Your task to perform on an android device: turn smart compose on in the gmail app Image 0: 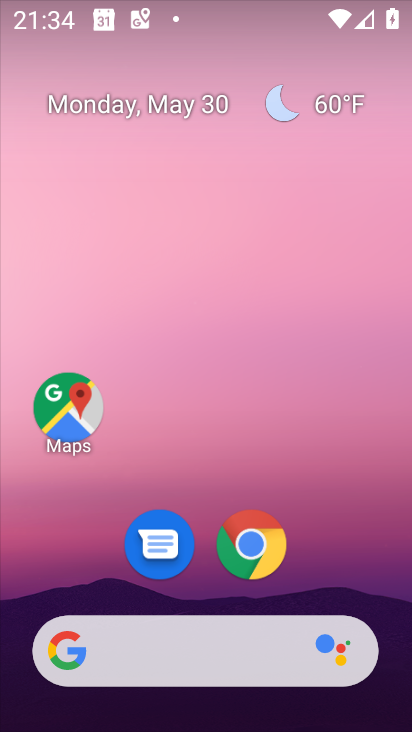
Step 0: drag from (349, 578) to (241, 108)
Your task to perform on an android device: turn smart compose on in the gmail app Image 1: 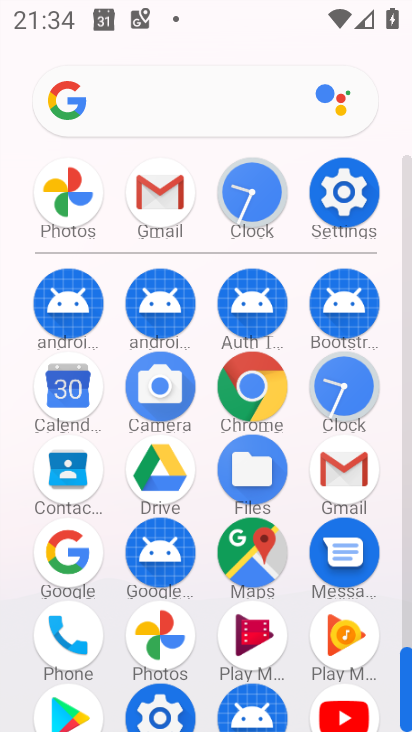
Step 1: click (158, 195)
Your task to perform on an android device: turn smart compose on in the gmail app Image 2: 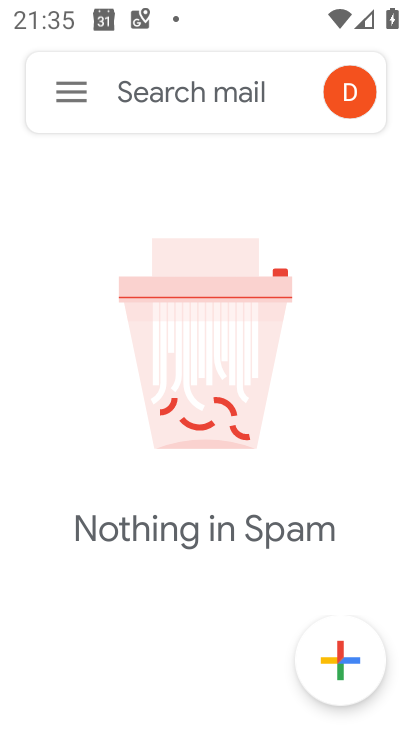
Step 2: click (72, 95)
Your task to perform on an android device: turn smart compose on in the gmail app Image 3: 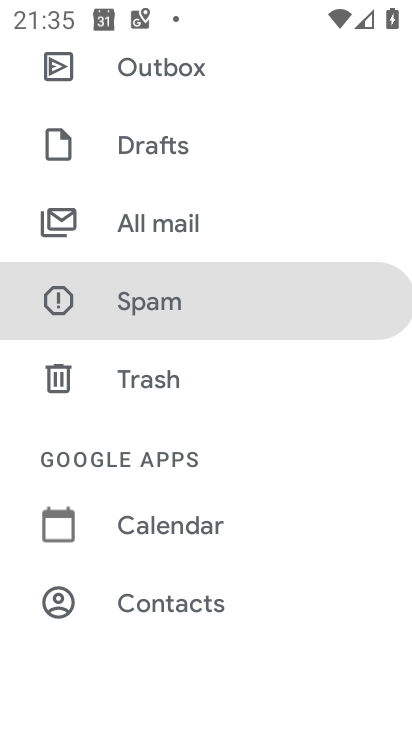
Step 3: drag from (171, 568) to (152, 465)
Your task to perform on an android device: turn smart compose on in the gmail app Image 4: 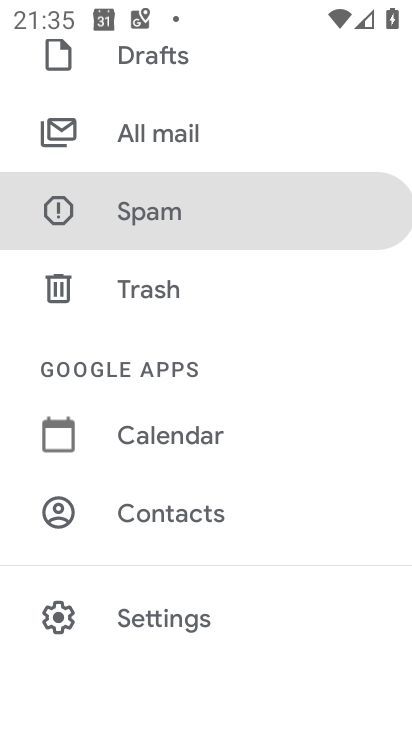
Step 4: drag from (169, 580) to (184, 503)
Your task to perform on an android device: turn smart compose on in the gmail app Image 5: 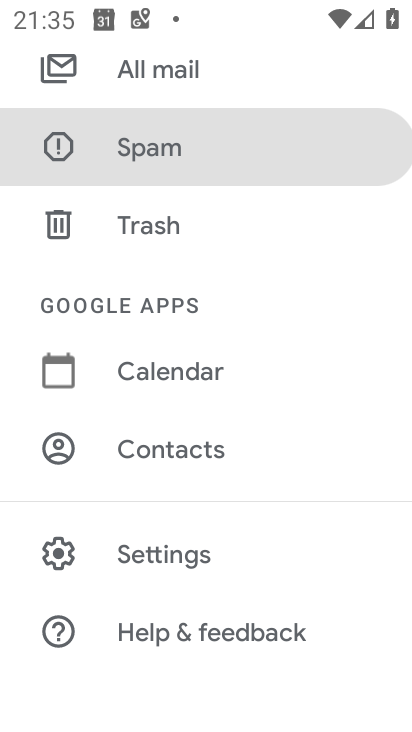
Step 5: click (187, 547)
Your task to perform on an android device: turn smart compose on in the gmail app Image 6: 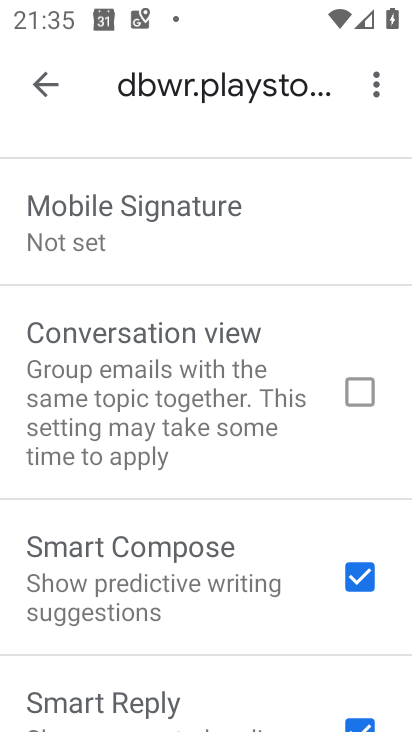
Step 6: task complete